Your task to perform on an android device: see sites visited before in the chrome app Image 0: 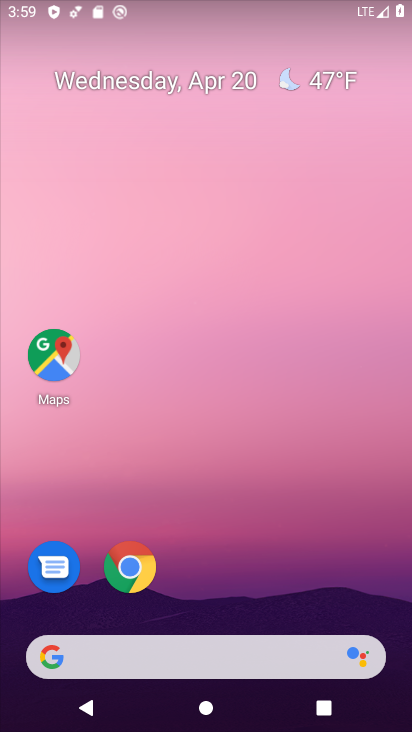
Step 0: drag from (278, 509) to (184, 58)
Your task to perform on an android device: see sites visited before in the chrome app Image 1: 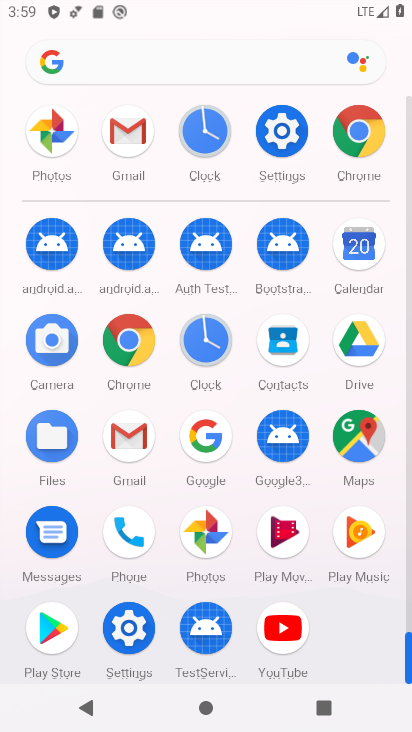
Step 1: drag from (9, 558) to (7, 361)
Your task to perform on an android device: see sites visited before in the chrome app Image 2: 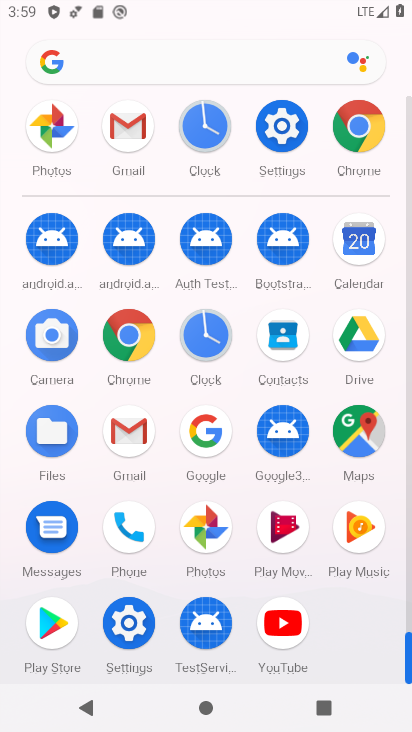
Step 2: click (129, 337)
Your task to perform on an android device: see sites visited before in the chrome app Image 3: 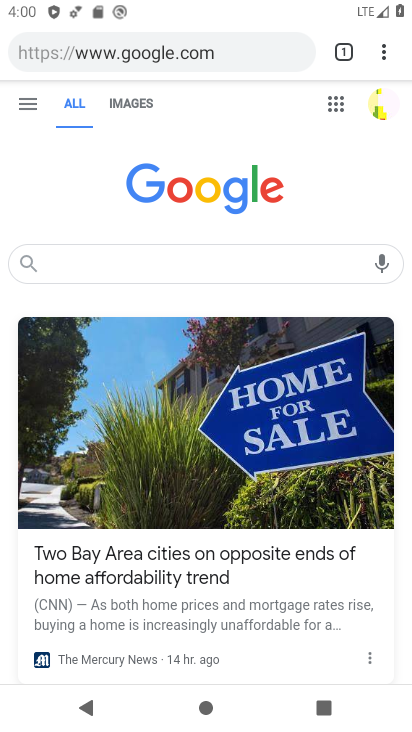
Step 3: task complete